Your task to perform on an android device: turn pop-ups on in chrome Image 0: 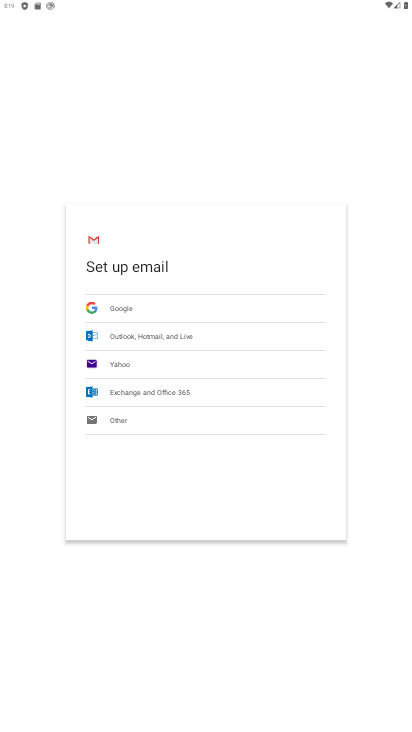
Step 0: press home button
Your task to perform on an android device: turn pop-ups on in chrome Image 1: 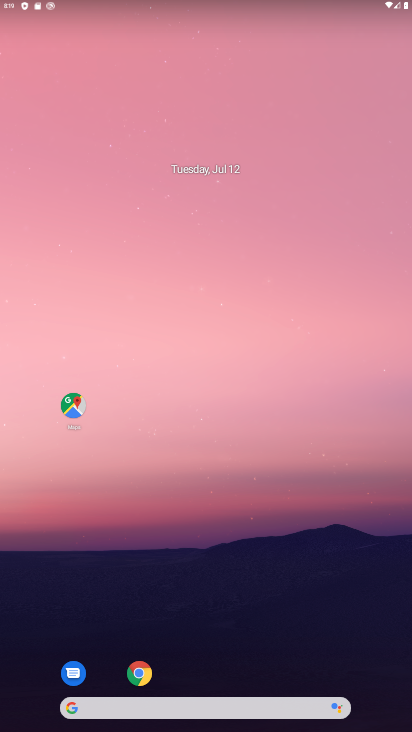
Step 1: drag from (265, 659) to (272, 38)
Your task to perform on an android device: turn pop-ups on in chrome Image 2: 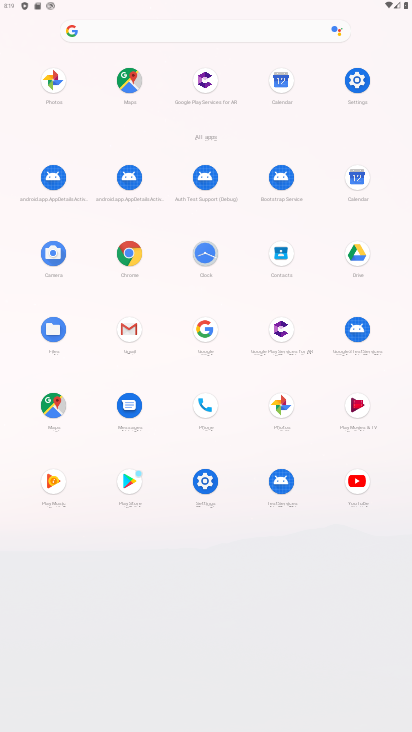
Step 2: click (126, 249)
Your task to perform on an android device: turn pop-ups on in chrome Image 3: 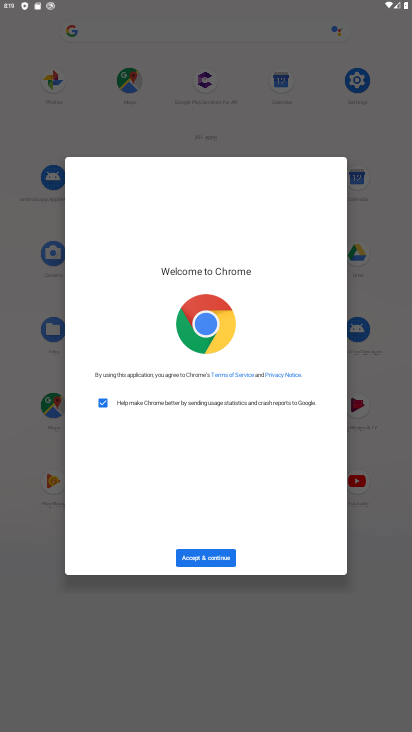
Step 3: click (197, 553)
Your task to perform on an android device: turn pop-ups on in chrome Image 4: 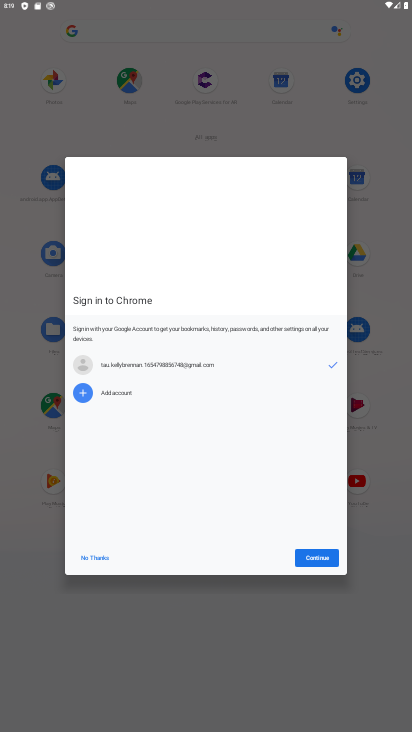
Step 4: click (321, 550)
Your task to perform on an android device: turn pop-ups on in chrome Image 5: 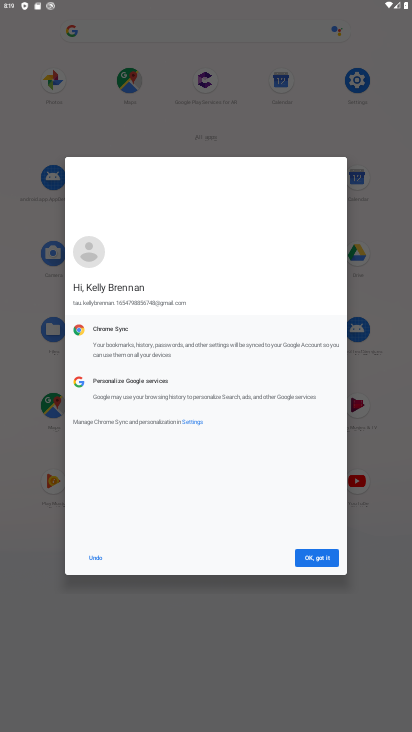
Step 5: click (321, 550)
Your task to perform on an android device: turn pop-ups on in chrome Image 6: 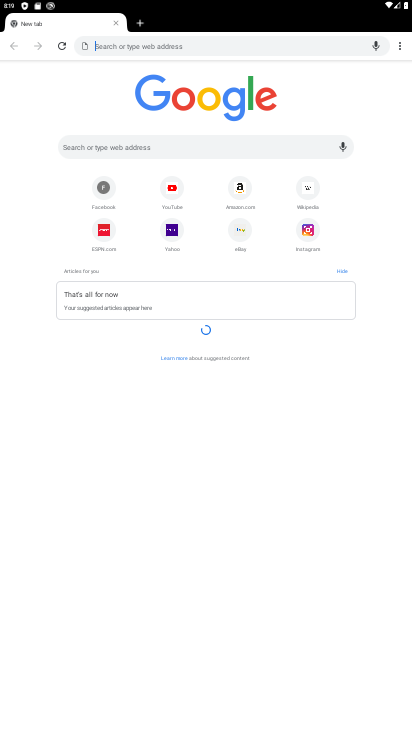
Step 6: drag from (400, 48) to (324, 218)
Your task to perform on an android device: turn pop-ups on in chrome Image 7: 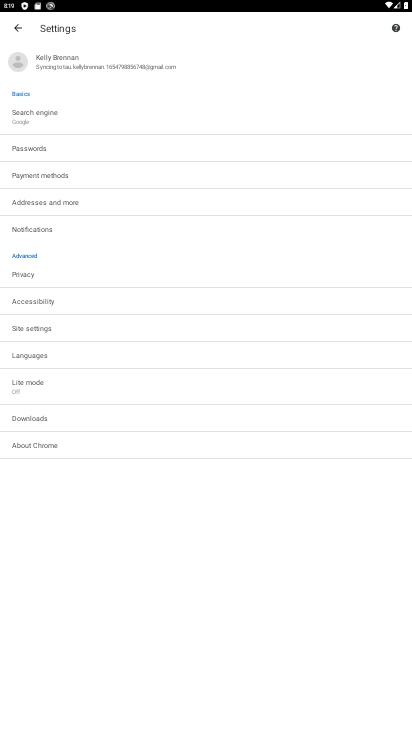
Step 7: click (49, 324)
Your task to perform on an android device: turn pop-ups on in chrome Image 8: 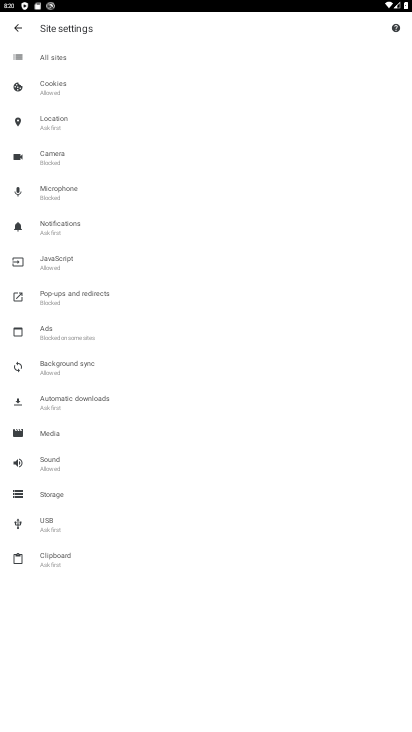
Step 8: click (68, 297)
Your task to perform on an android device: turn pop-ups on in chrome Image 9: 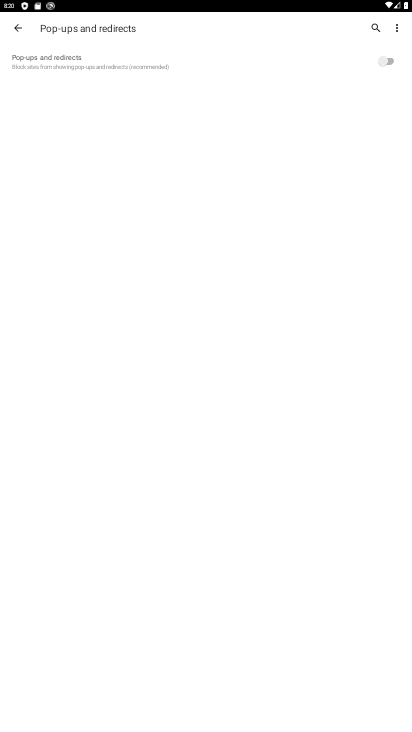
Step 9: click (384, 55)
Your task to perform on an android device: turn pop-ups on in chrome Image 10: 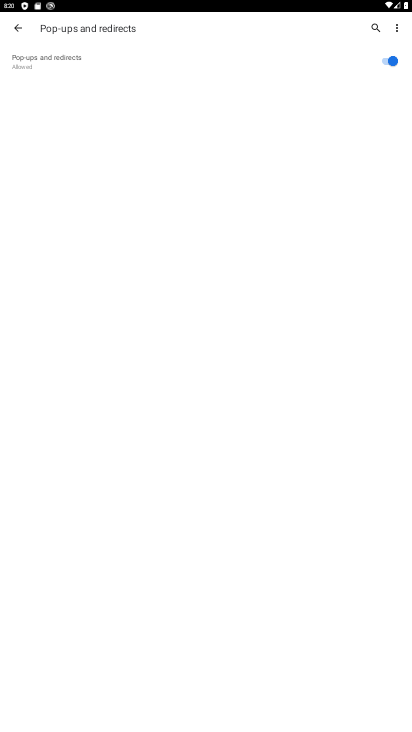
Step 10: task complete